Your task to perform on an android device: Go to Reddit.com Image 0: 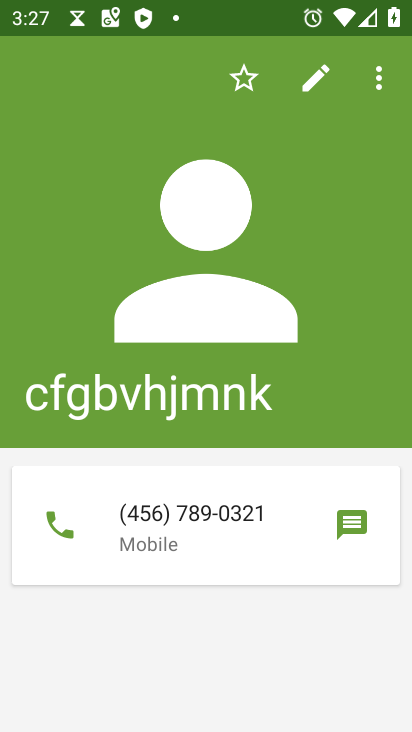
Step 0: press home button
Your task to perform on an android device: Go to Reddit.com Image 1: 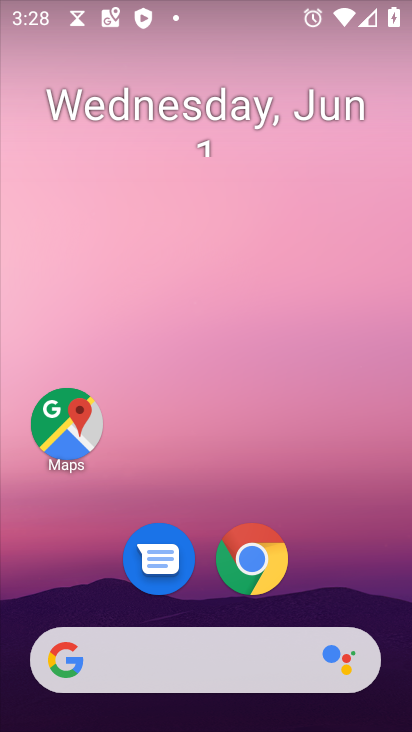
Step 1: click (248, 556)
Your task to perform on an android device: Go to Reddit.com Image 2: 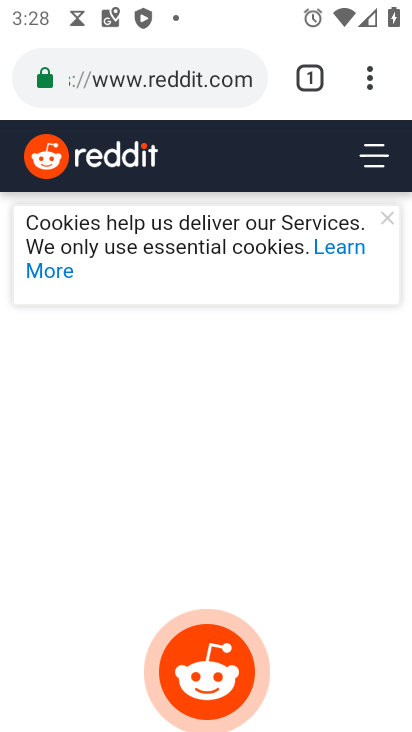
Step 2: task complete